Your task to perform on an android device: open a new tab in the chrome app Image 0: 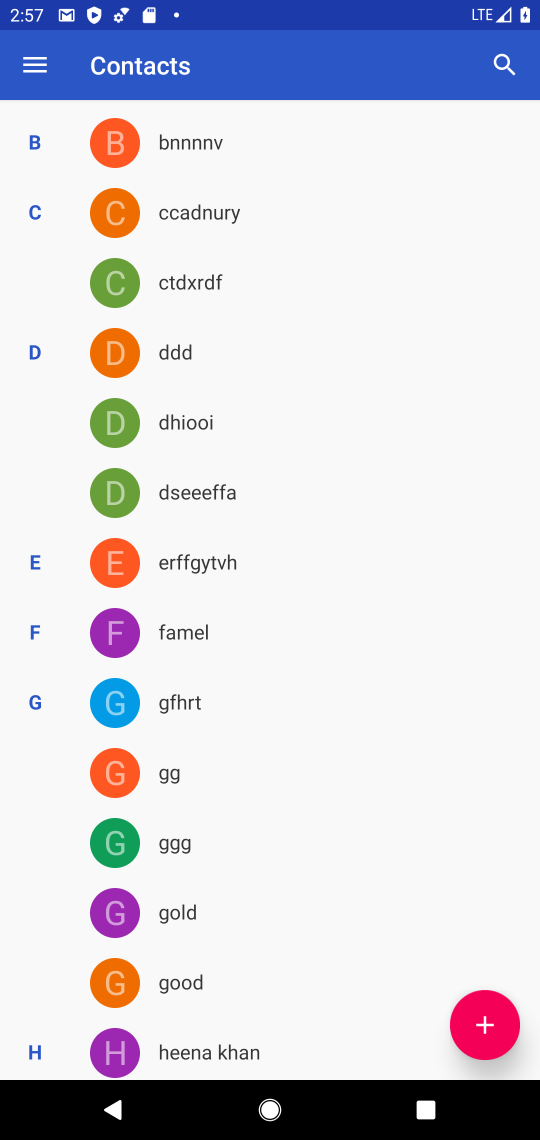
Step 0: press home button
Your task to perform on an android device: open a new tab in the chrome app Image 1: 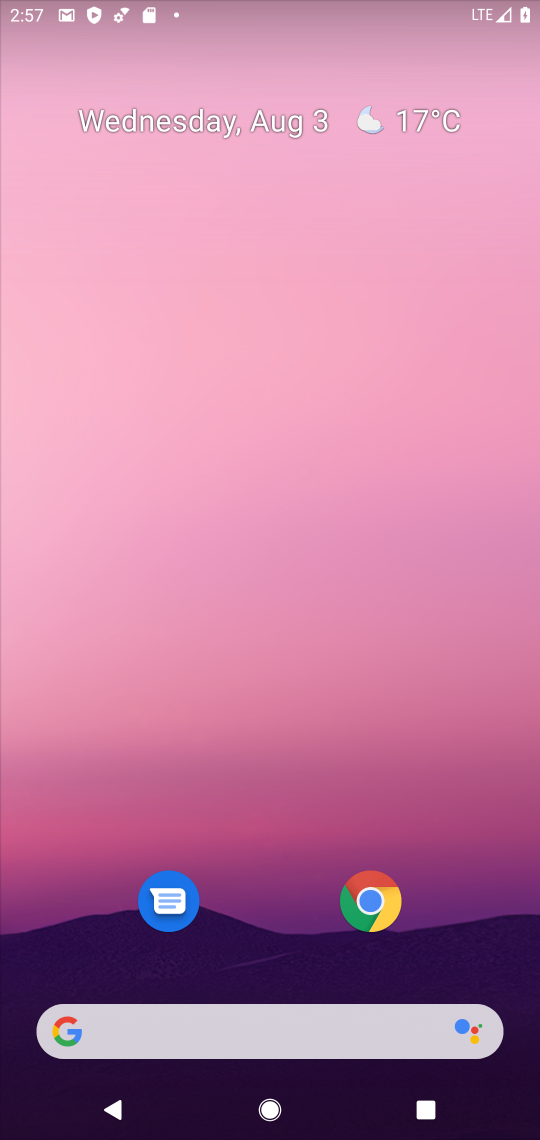
Step 1: drag from (229, 914) to (259, 372)
Your task to perform on an android device: open a new tab in the chrome app Image 2: 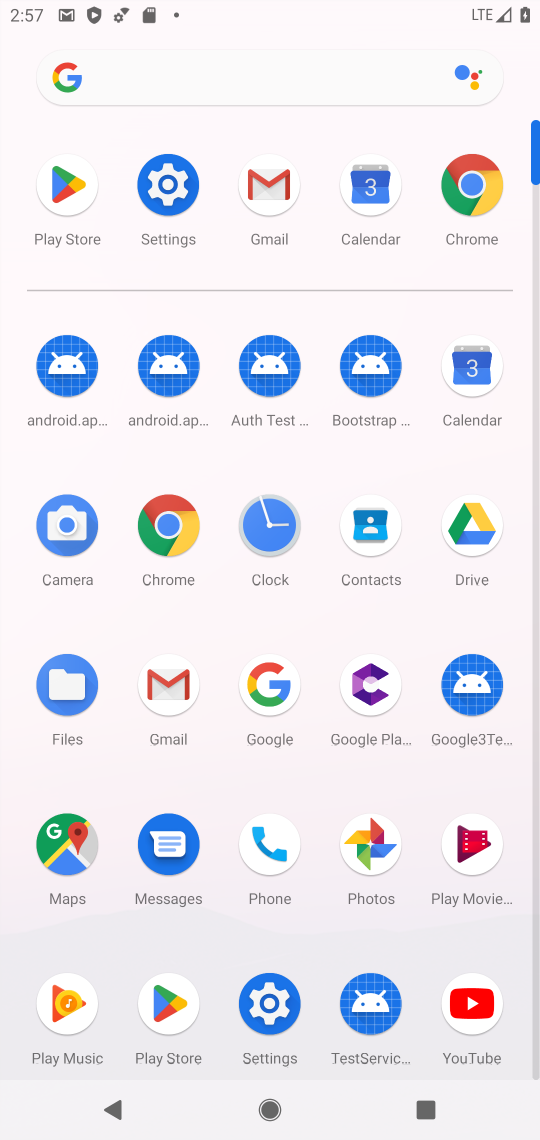
Step 2: click (476, 212)
Your task to perform on an android device: open a new tab in the chrome app Image 3: 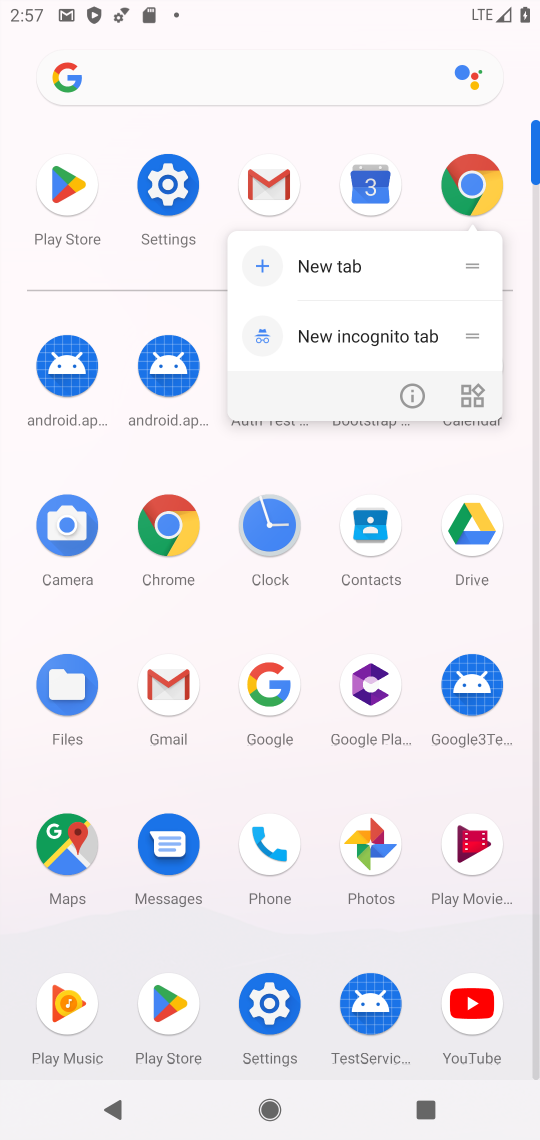
Step 3: click (476, 206)
Your task to perform on an android device: open a new tab in the chrome app Image 4: 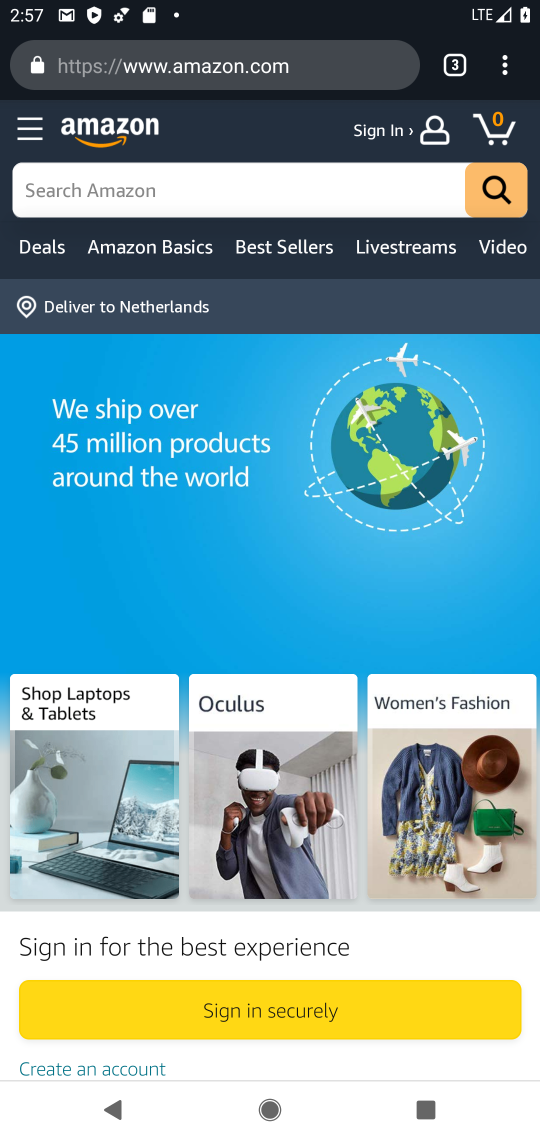
Step 4: click (476, 206)
Your task to perform on an android device: open a new tab in the chrome app Image 5: 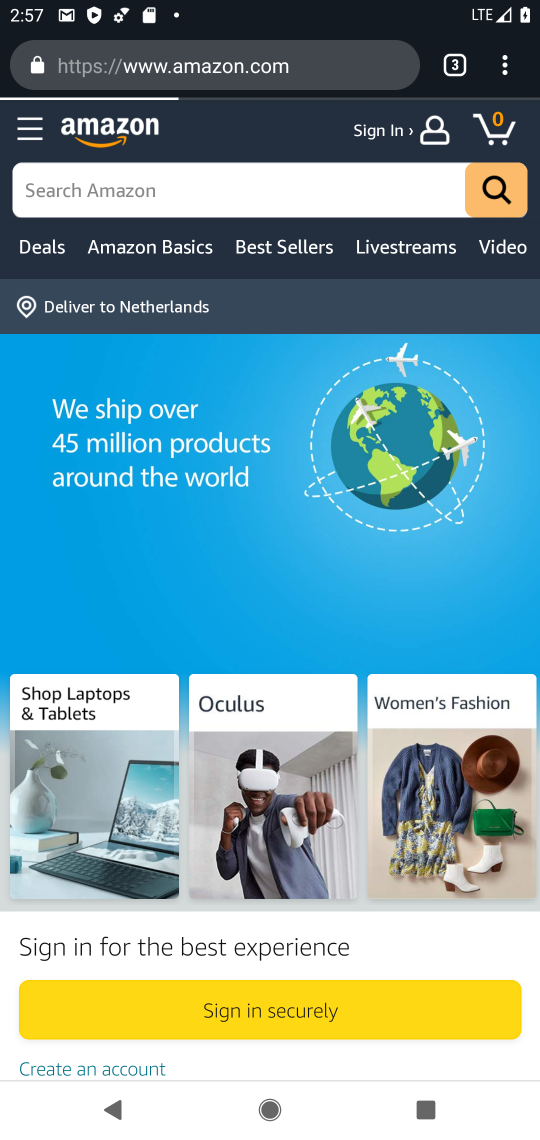
Step 5: click (529, 73)
Your task to perform on an android device: open a new tab in the chrome app Image 6: 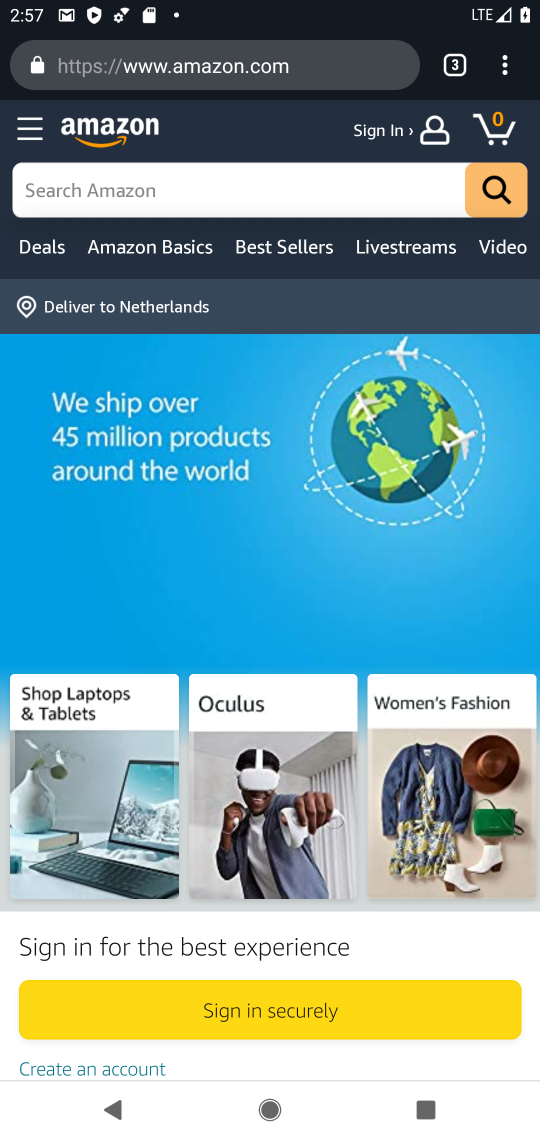
Step 6: click (509, 85)
Your task to perform on an android device: open a new tab in the chrome app Image 7: 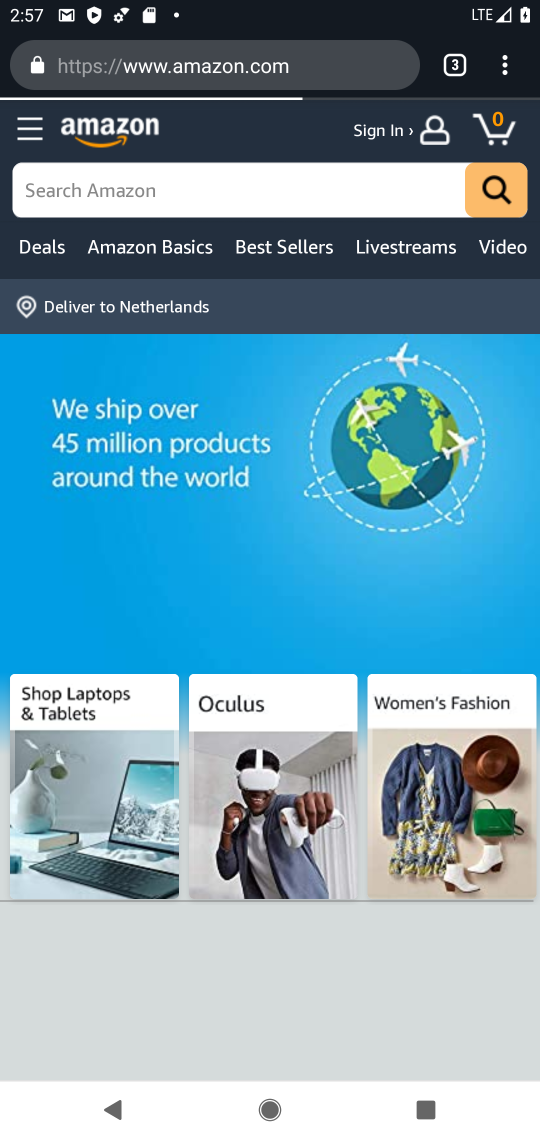
Step 7: click (527, 58)
Your task to perform on an android device: open a new tab in the chrome app Image 8: 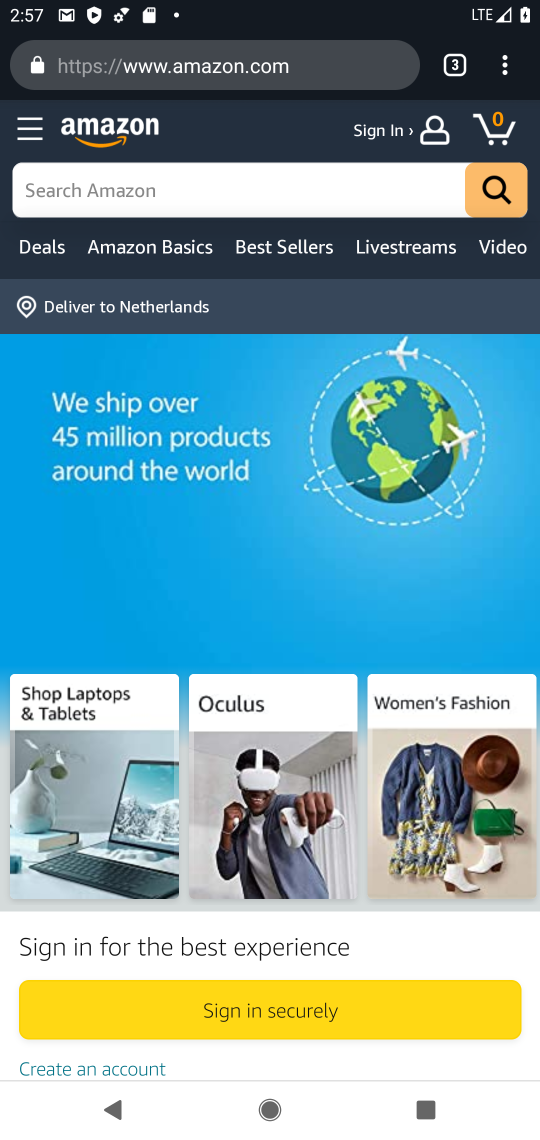
Step 8: click (505, 82)
Your task to perform on an android device: open a new tab in the chrome app Image 9: 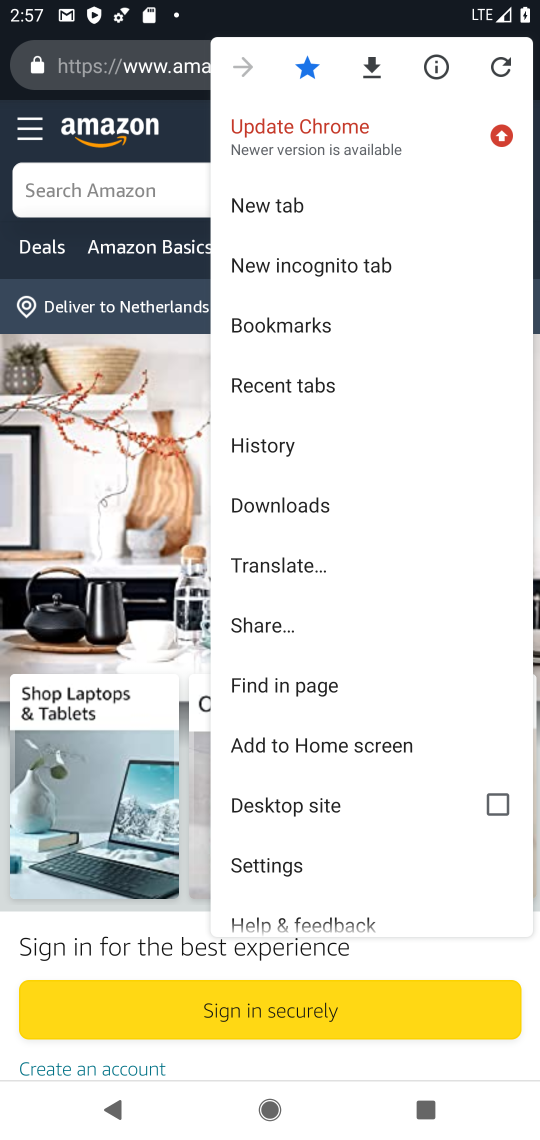
Step 9: click (305, 201)
Your task to perform on an android device: open a new tab in the chrome app Image 10: 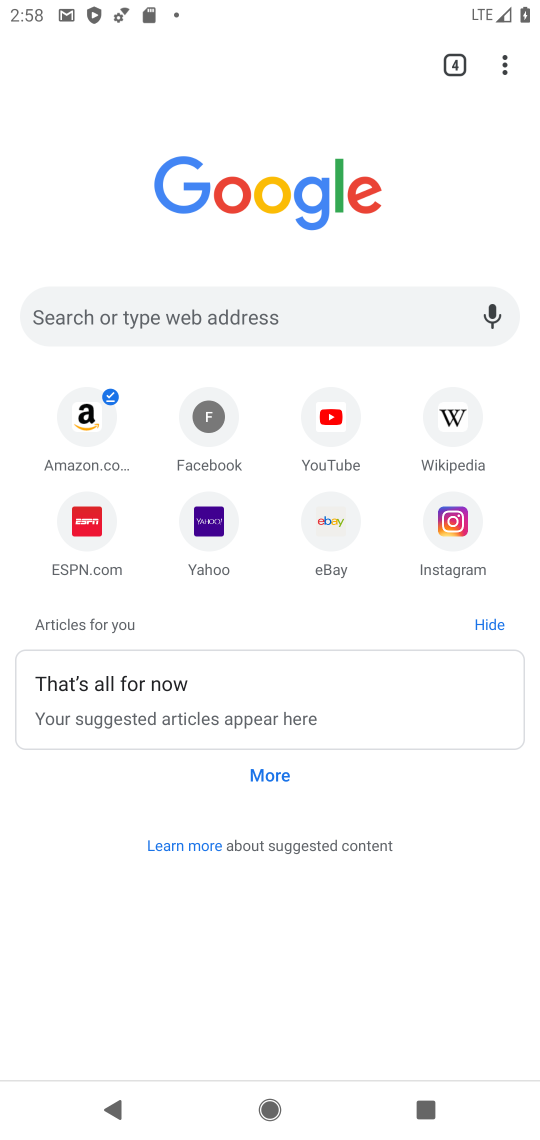
Step 10: task complete